Your task to perform on an android device: Turn off the flashlight Image 0: 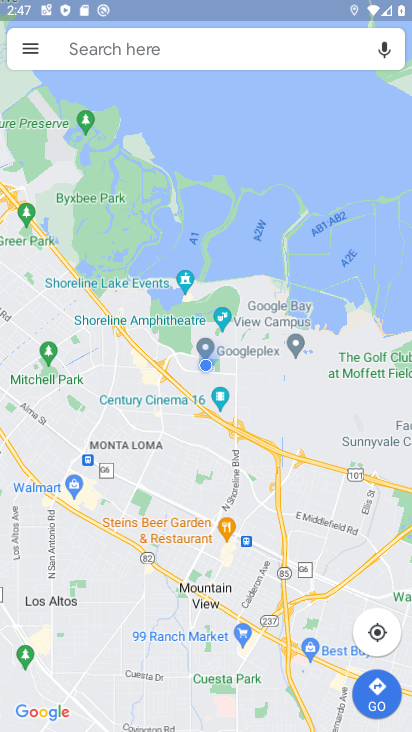
Step 0: press home button
Your task to perform on an android device: Turn off the flashlight Image 1: 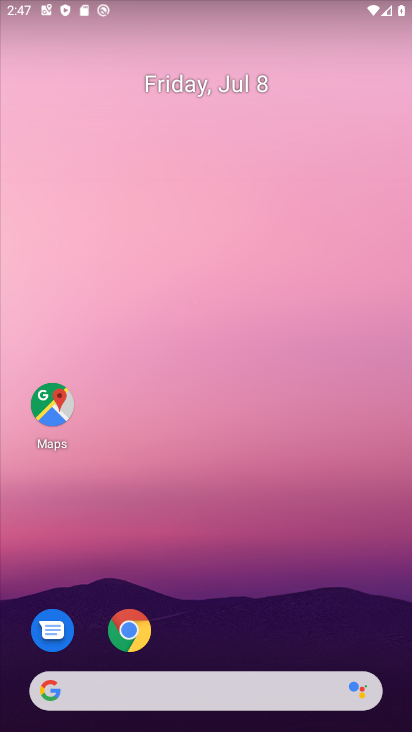
Step 1: drag from (238, 655) to (214, 205)
Your task to perform on an android device: Turn off the flashlight Image 2: 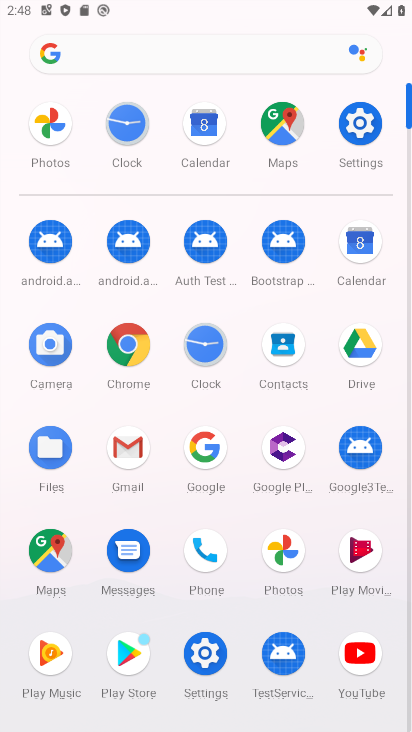
Step 2: click (343, 139)
Your task to perform on an android device: Turn off the flashlight Image 3: 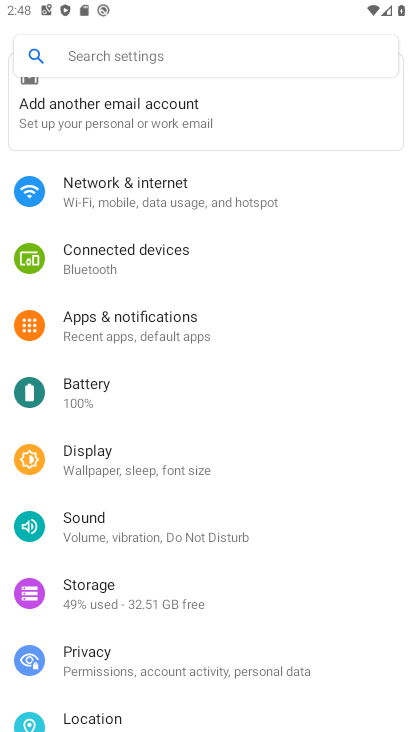
Step 3: click (173, 281)
Your task to perform on an android device: Turn off the flashlight Image 4: 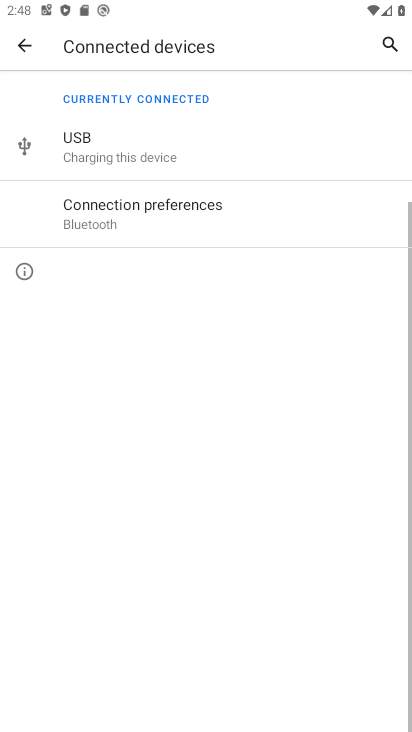
Step 4: task complete